Your task to perform on an android device: Search for good BBQ restaurants Image 0: 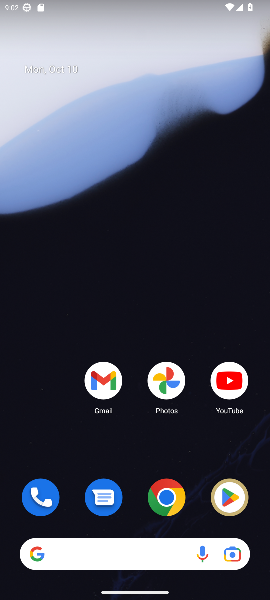
Step 0: drag from (141, 288) to (157, 185)
Your task to perform on an android device: Search for good BBQ restaurants Image 1: 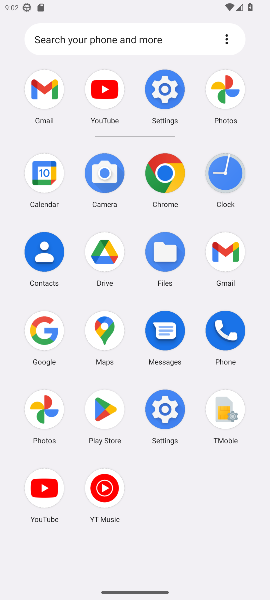
Step 1: click (38, 318)
Your task to perform on an android device: Search for good BBQ restaurants Image 2: 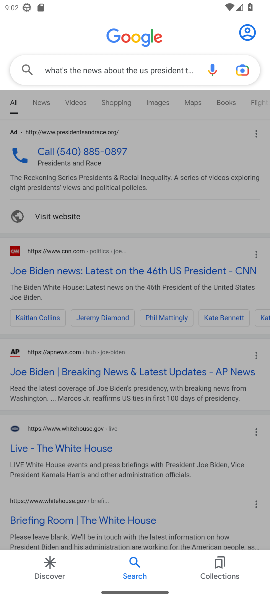
Step 2: click (86, 61)
Your task to perform on an android device: Search for good BBQ restaurants Image 3: 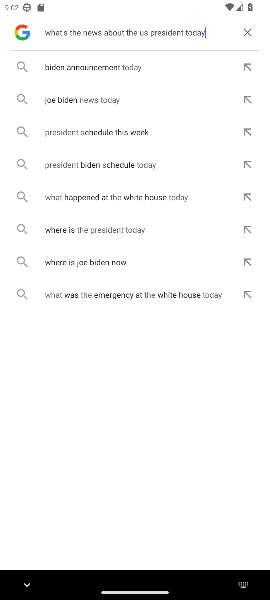
Step 3: click (244, 28)
Your task to perform on an android device: Search for good BBQ restaurants Image 4: 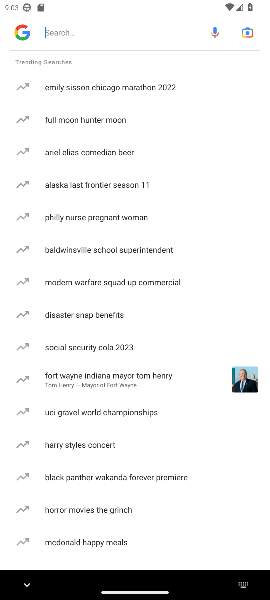
Step 4: click (112, 31)
Your task to perform on an android device: Search for good BBQ restaurants Image 5: 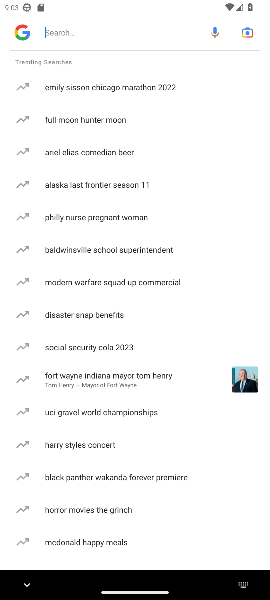
Step 5: type "Open the Google play store app "
Your task to perform on an android device: Search for good BBQ restaurants Image 6: 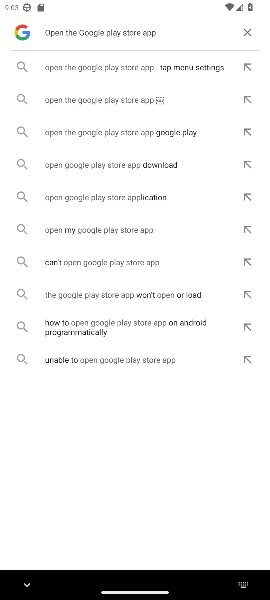
Step 6: click (247, 25)
Your task to perform on an android device: Search for good BBQ restaurants Image 7: 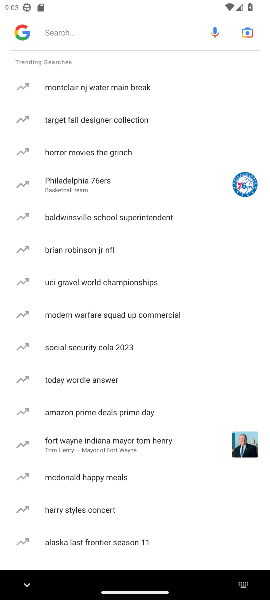
Step 7: click (102, 23)
Your task to perform on an android device: Search for good BBQ restaurants Image 8: 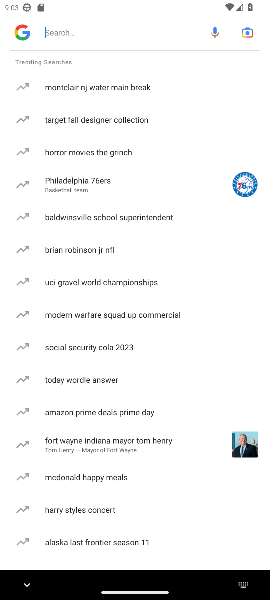
Step 8: type "Search for good BBQ restaurants "
Your task to perform on an android device: Search for good BBQ restaurants Image 9: 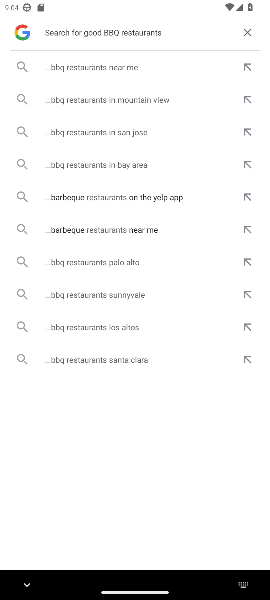
Step 9: click (102, 69)
Your task to perform on an android device: Search for good BBQ restaurants Image 10: 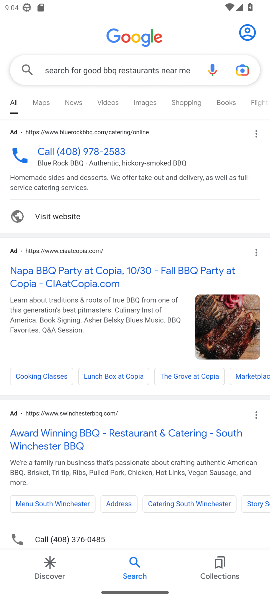
Step 10: click (66, 262)
Your task to perform on an android device: Search for good BBQ restaurants Image 11: 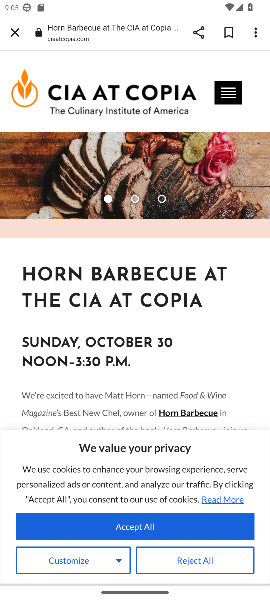
Step 11: click (177, 530)
Your task to perform on an android device: Search for good BBQ restaurants Image 12: 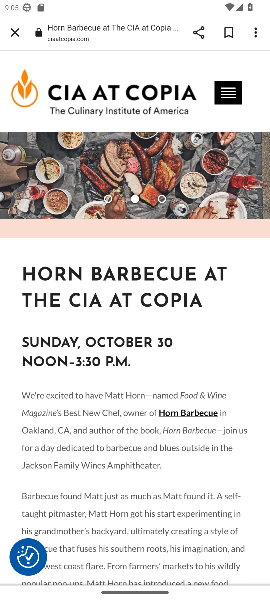
Step 12: task complete